Your task to perform on an android device: Clear the cart on ebay.com. Search for bose soundlink on ebay.com, select the first entry, add it to the cart, then select checkout. Image 0: 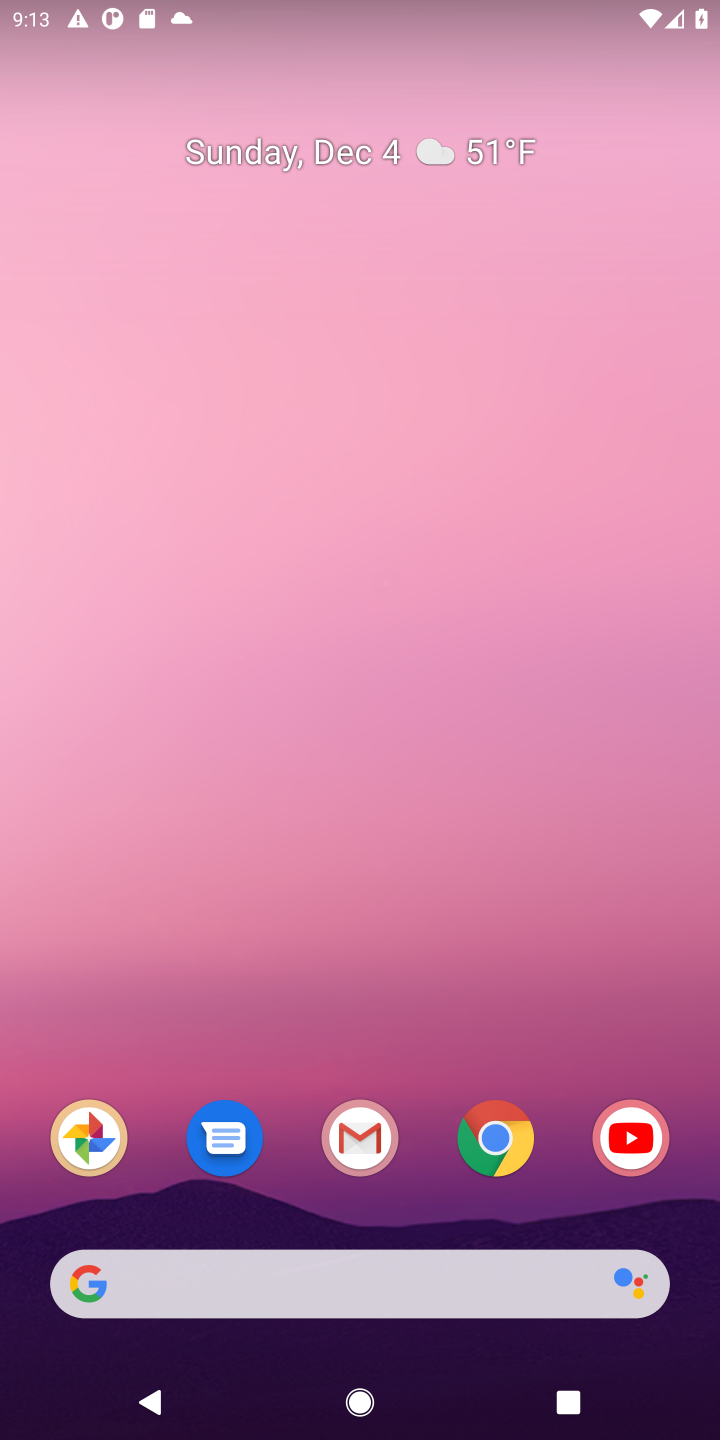
Step 0: click (526, 1131)
Your task to perform on an android device: Clear the cart on ebay.com. Search for bose soundlink on ebay.com, select the first entry, add it to the cart, then select checkout. Image 1: 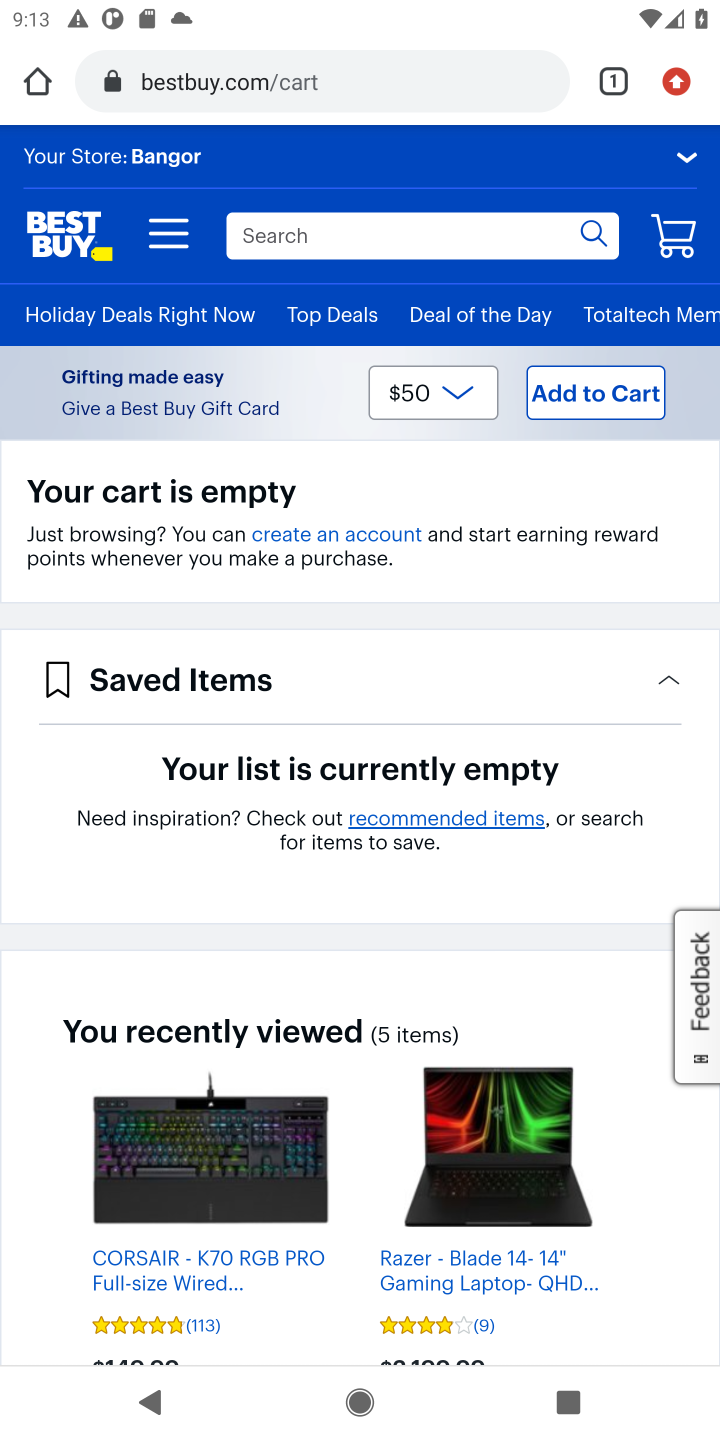
Step 1: click (352, 79)
Your task to perform on an android device: Clear the cart on ebay.com. Search for bose soundlink on ebay.com, select the first entry, add it to the cart, then select checkout. Image 2: 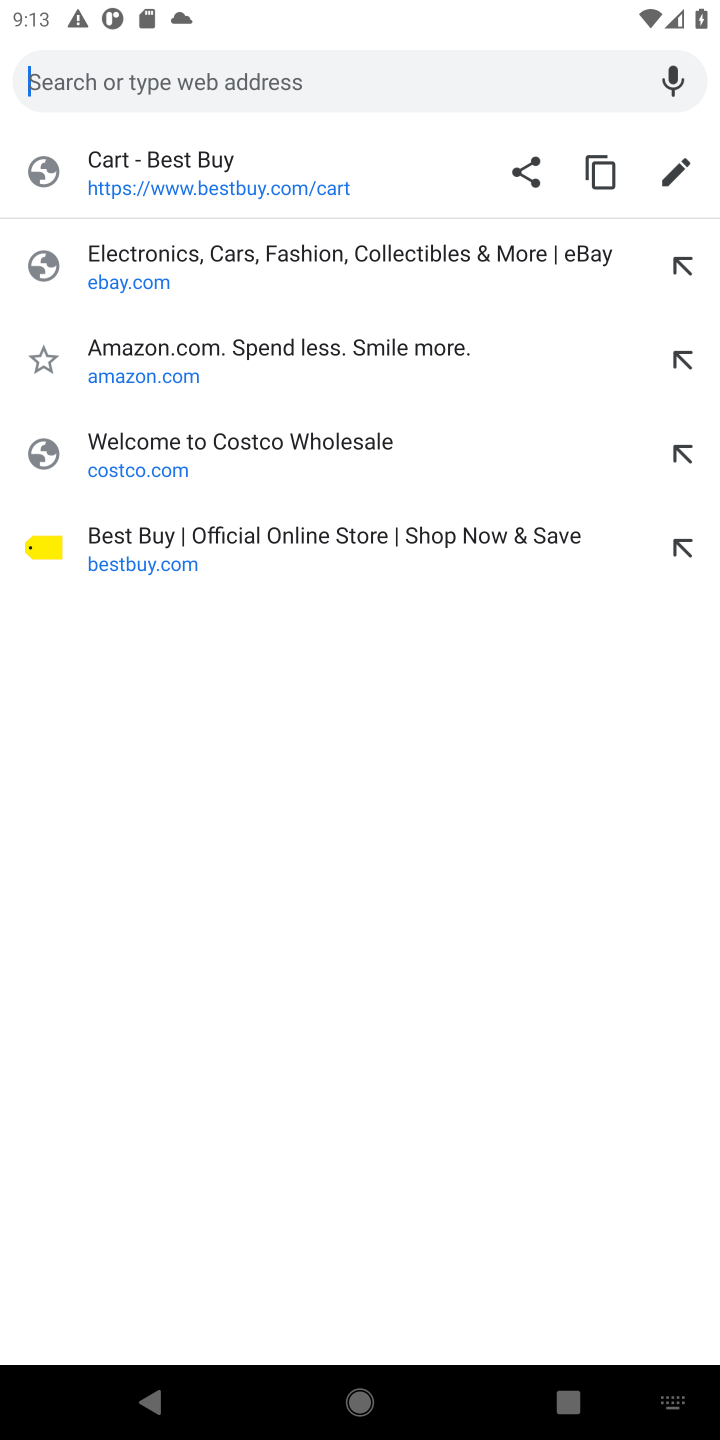
Step 2: type "ebay.com"
Your task to perform on an android device: Clear the cart on ebay.com. Search for bose soundlink on ebay.com, select the first entry, add it to the cart, then select checkout. Image 3: 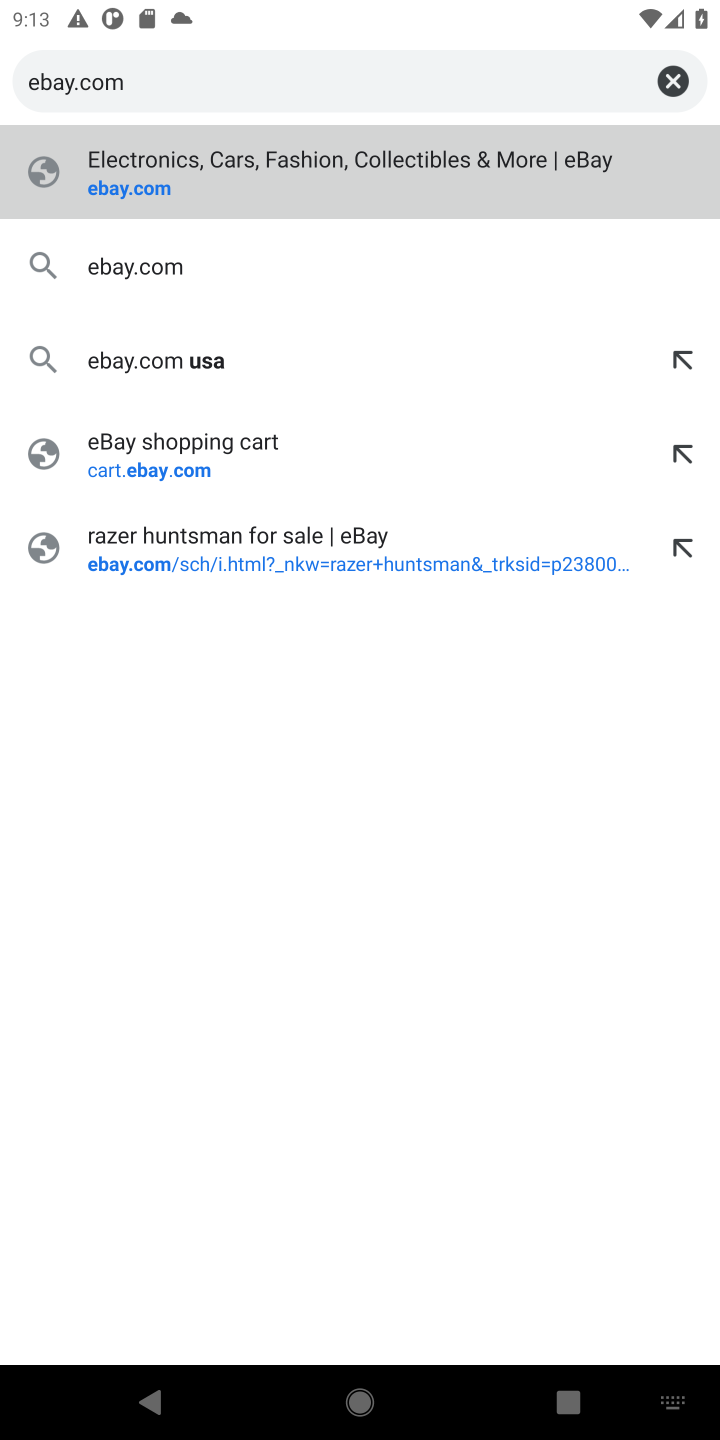
Step 3: press enter
Your task to perform on an android device: Clear the cart on ebay.com. Search for bose soundlink on ebay.com, select the first entry, add it to the cart, then select checkout. Image 4: 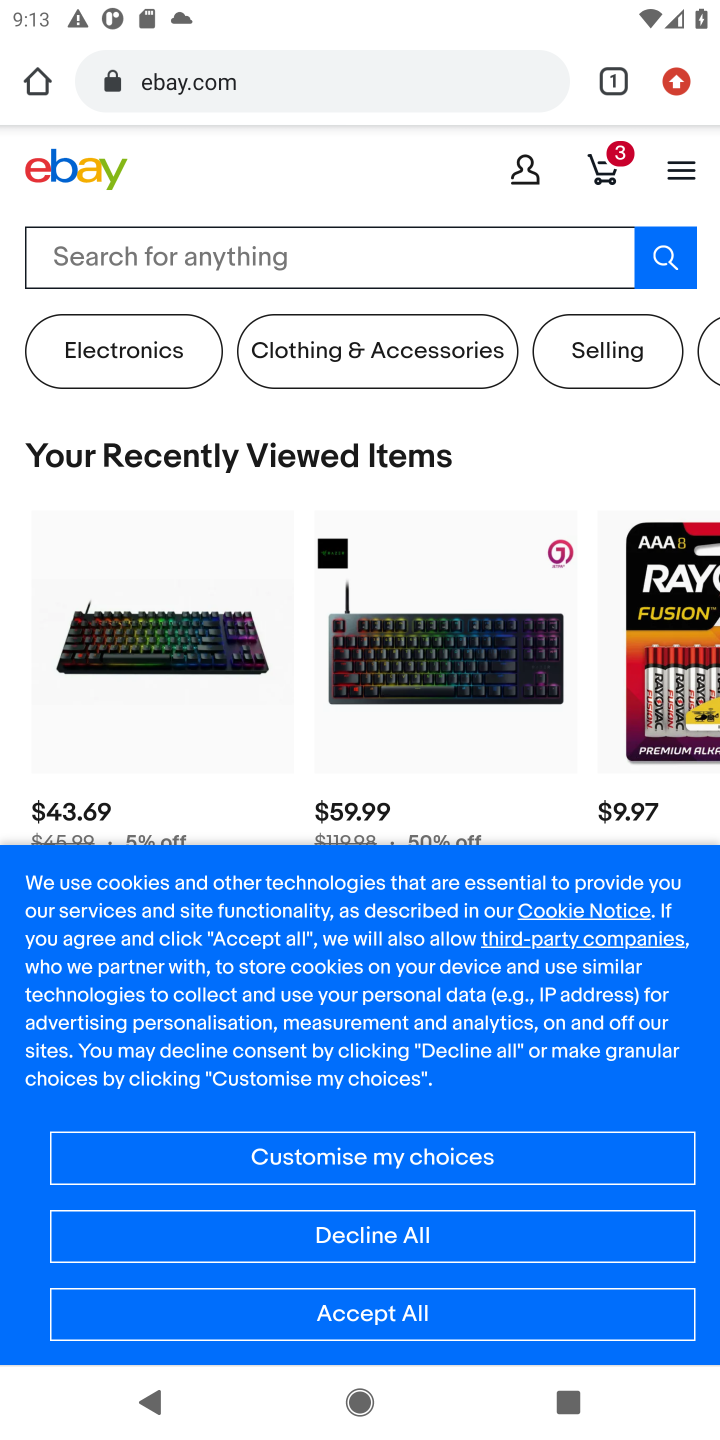
Step 4: click (595, 178)
Your task to perform on an android device: Clear the cart on ebay.com. Search for bose soundlink on ebay.com, select the first entry, add it to the cart, then select checkout. Image 5: 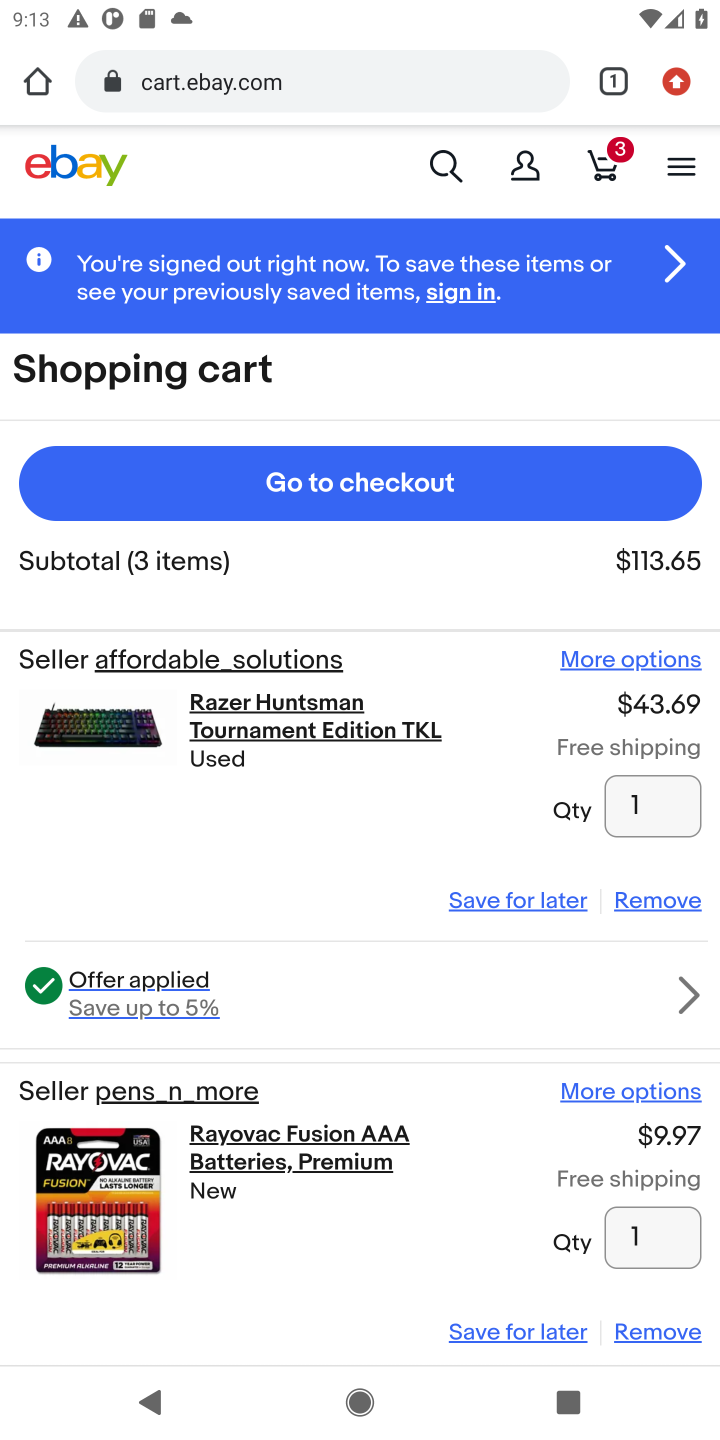
Step 5: click (663, 909)
Your task to perform on an android device: Clear the cart on ebay.com. Search for bose soundlink on ebay.com, select the first entry, add it to the cart, then select checkout. Image 6: 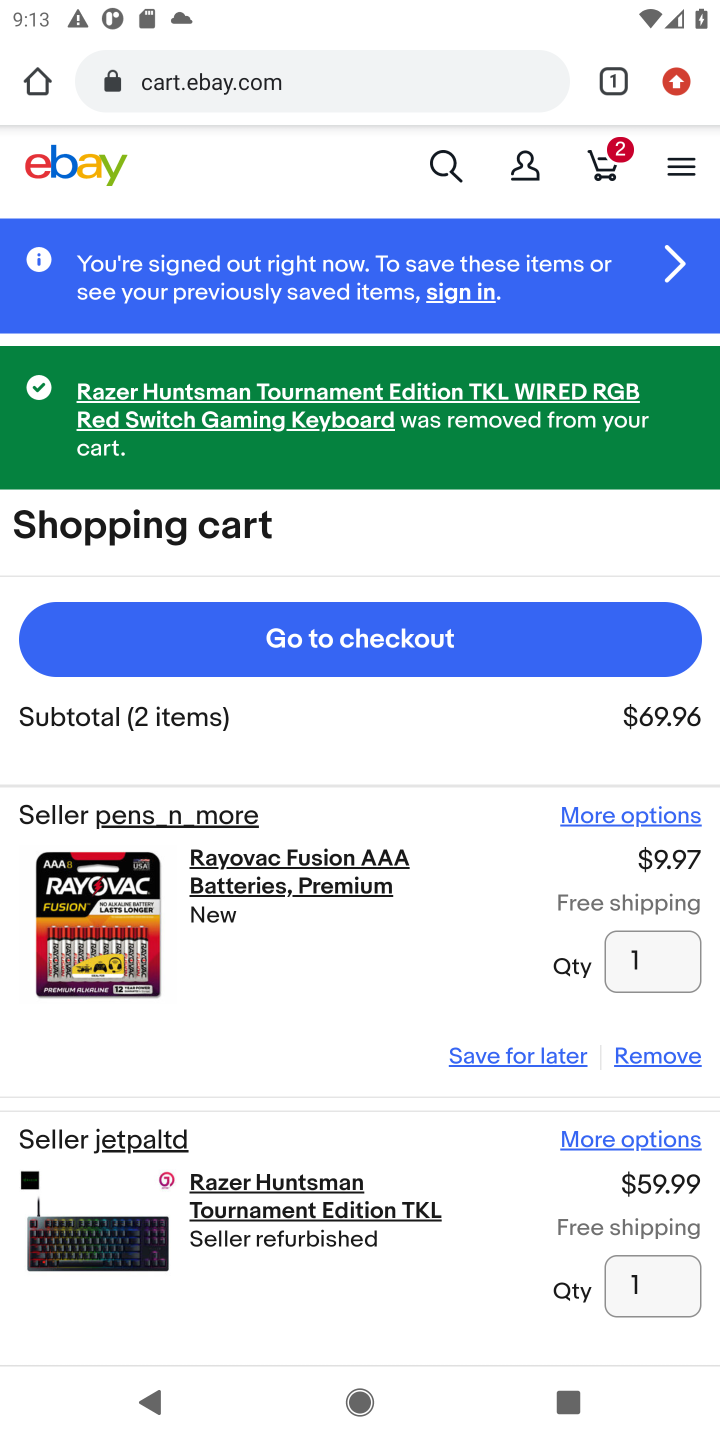
Step 6: click (657, 1054)
Your task to perform on an android device: Clear the cart on ebay.com. Search for bose soundlink on ebay.com, select the first entry, add it to the cart, then select checkout. Image 7: 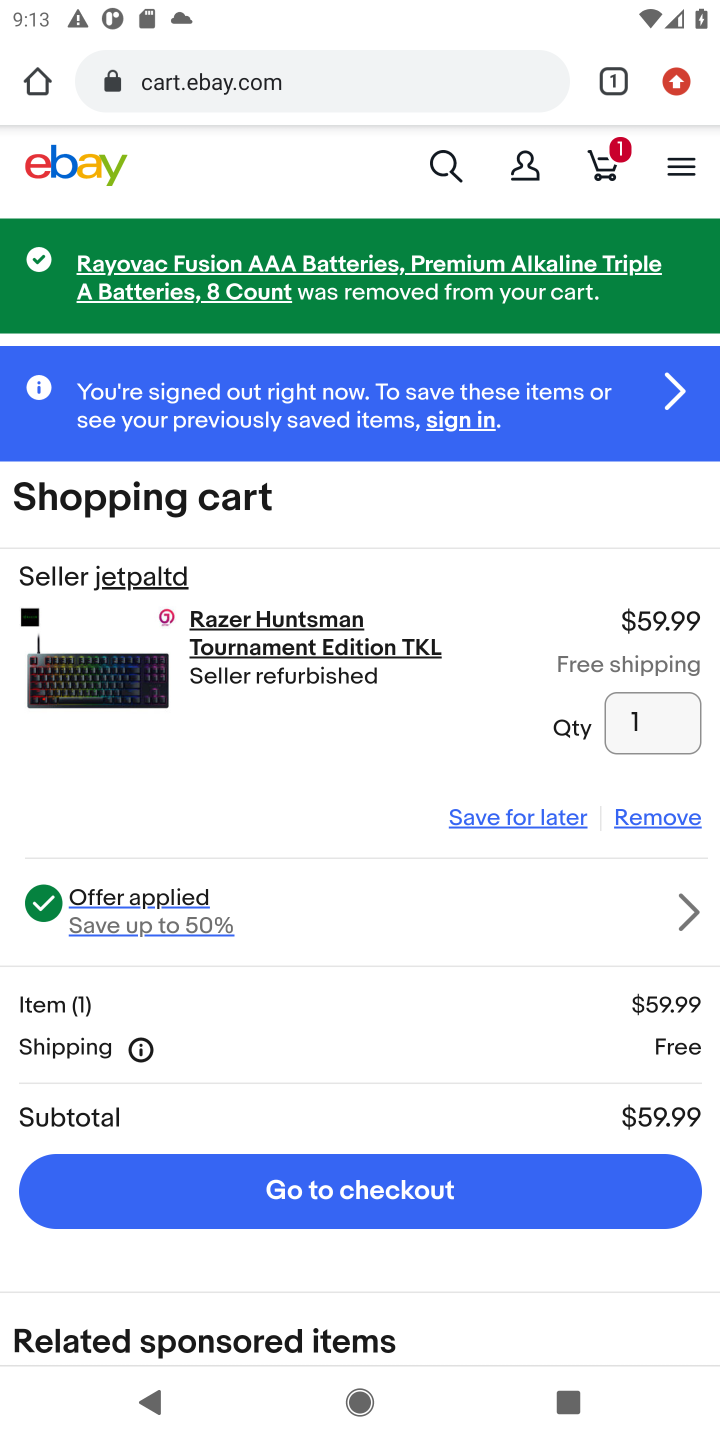
Step 7: click (669, 823)
Your task to perform on an android device: Clear the cart on ebay.com. Search for bose soundlink on ebay.com, select the first entry, add it to the cart, then select checkout. Image 8: 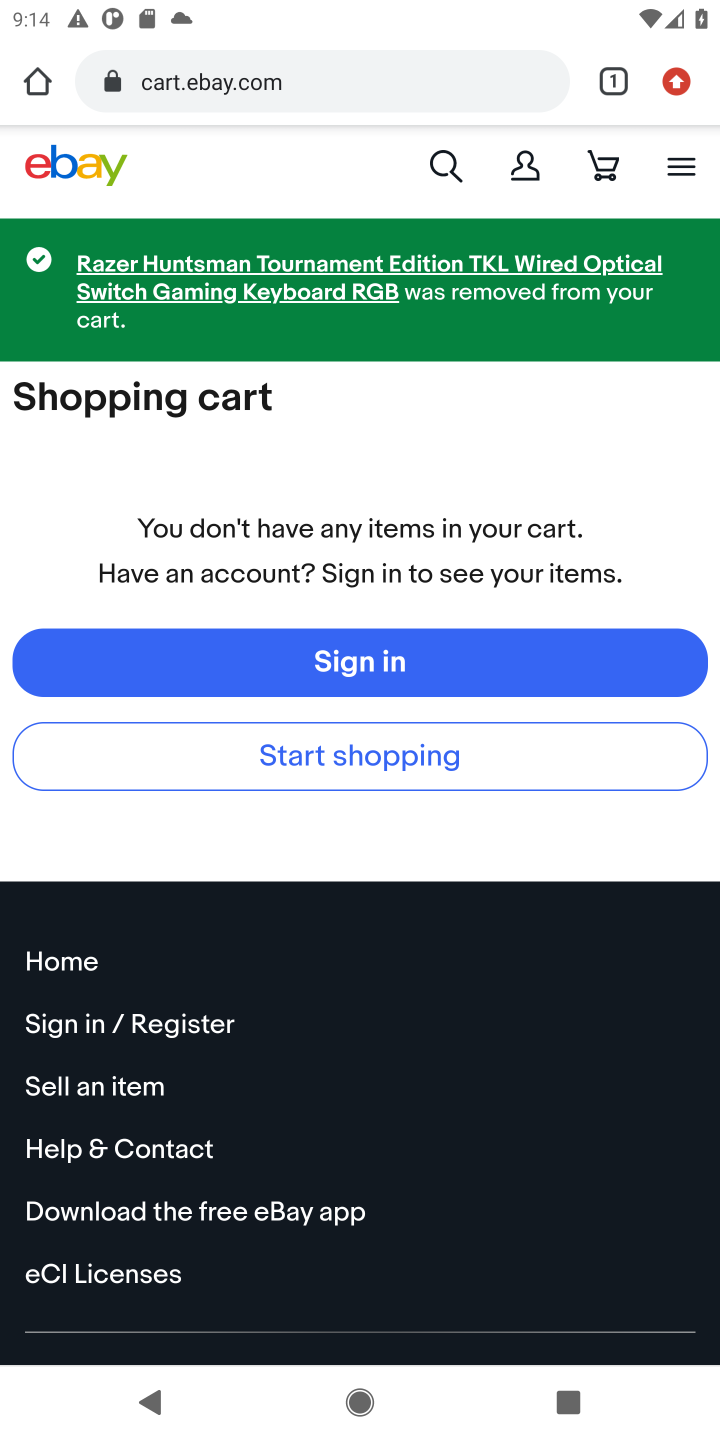
Step 8: click (444, 150)
Your task to perform on an android device: Clear the cart on ebay.com. Search for bose soundlink on ebay.com, select the first entry, add it to the cart, then select checkout. Image 9: 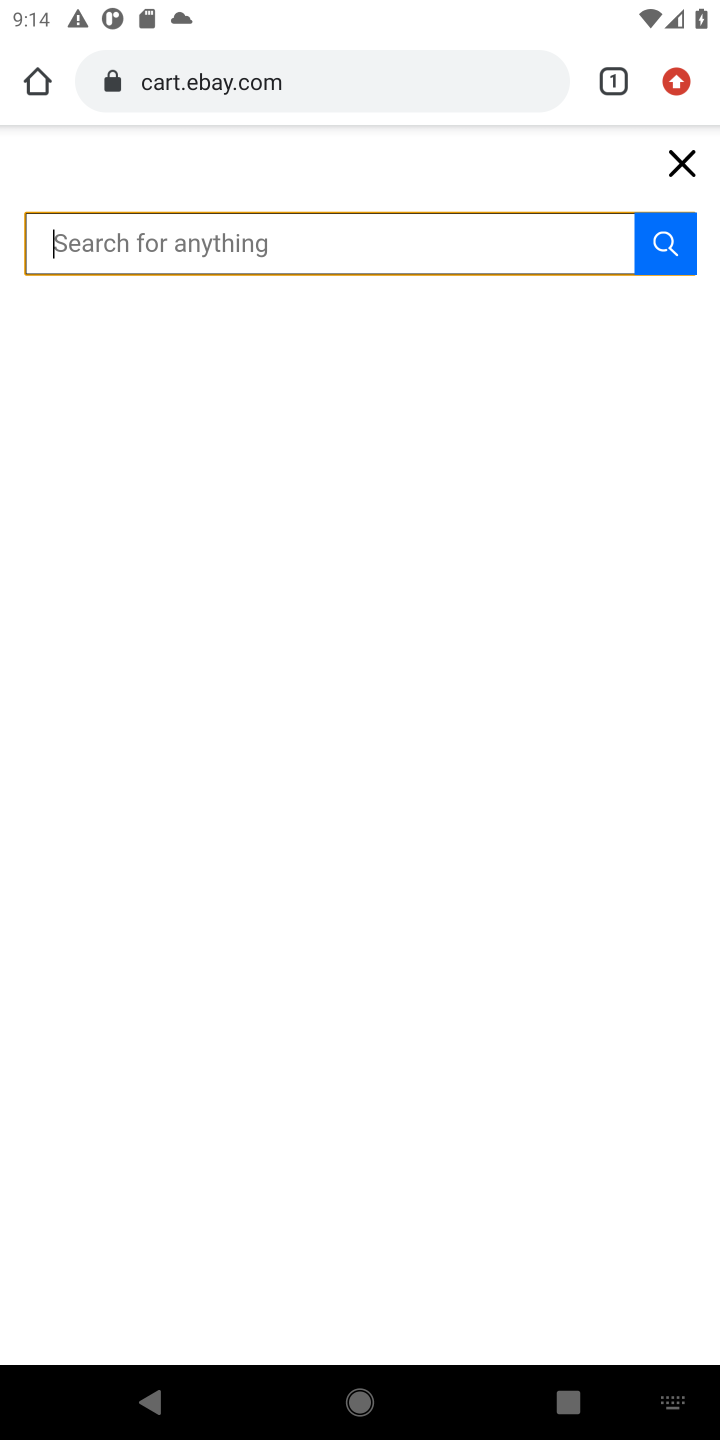
Step 9: type "bose soundlink"
Your task to perform on an android device: Clear the cart on ebay.com. Search for bose soundlink on ebay.com, select the first entry, add it to the cart, then select checkout. Image 10: 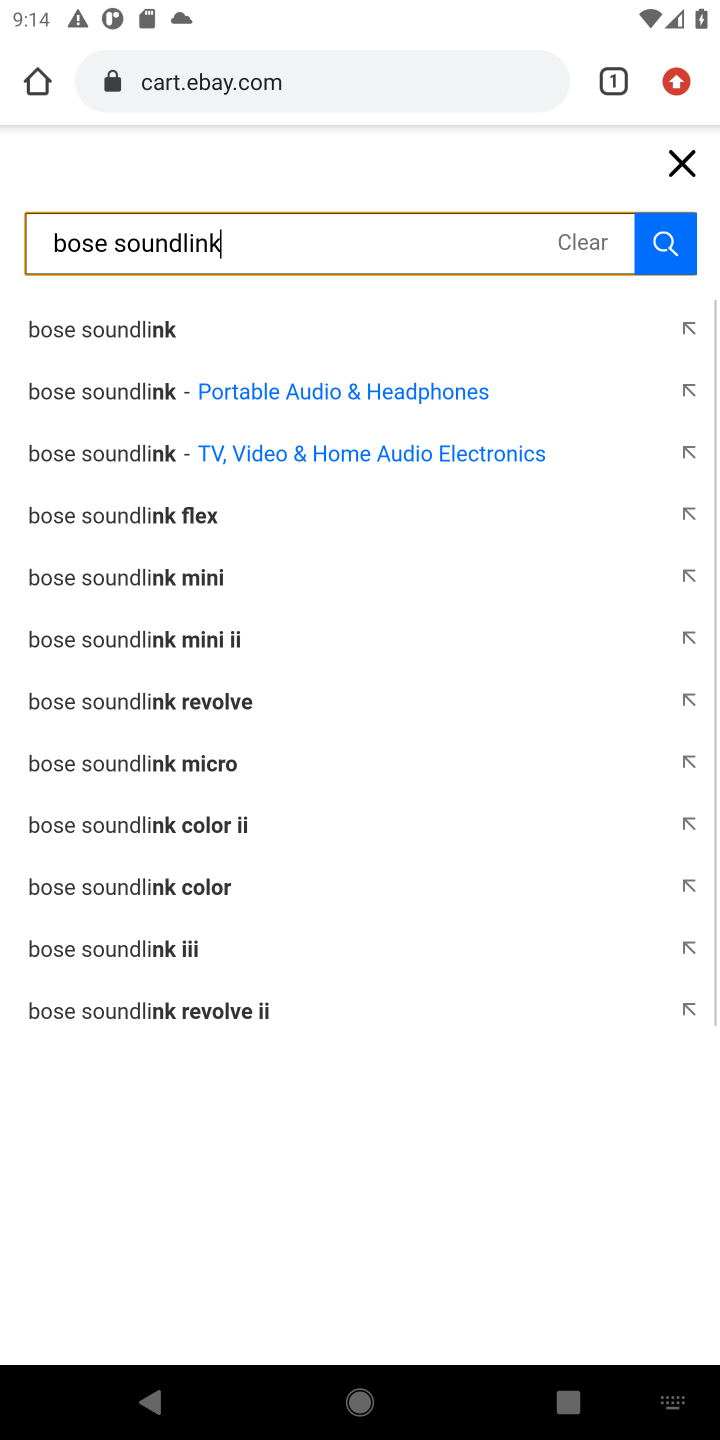
Step 10: press enter
Your task to perform on an android device: Clear the cart on ebay.com. Search for bose soundlink on ebay.com, select the first entry, add it to the cart, then select checkout. Image 11: 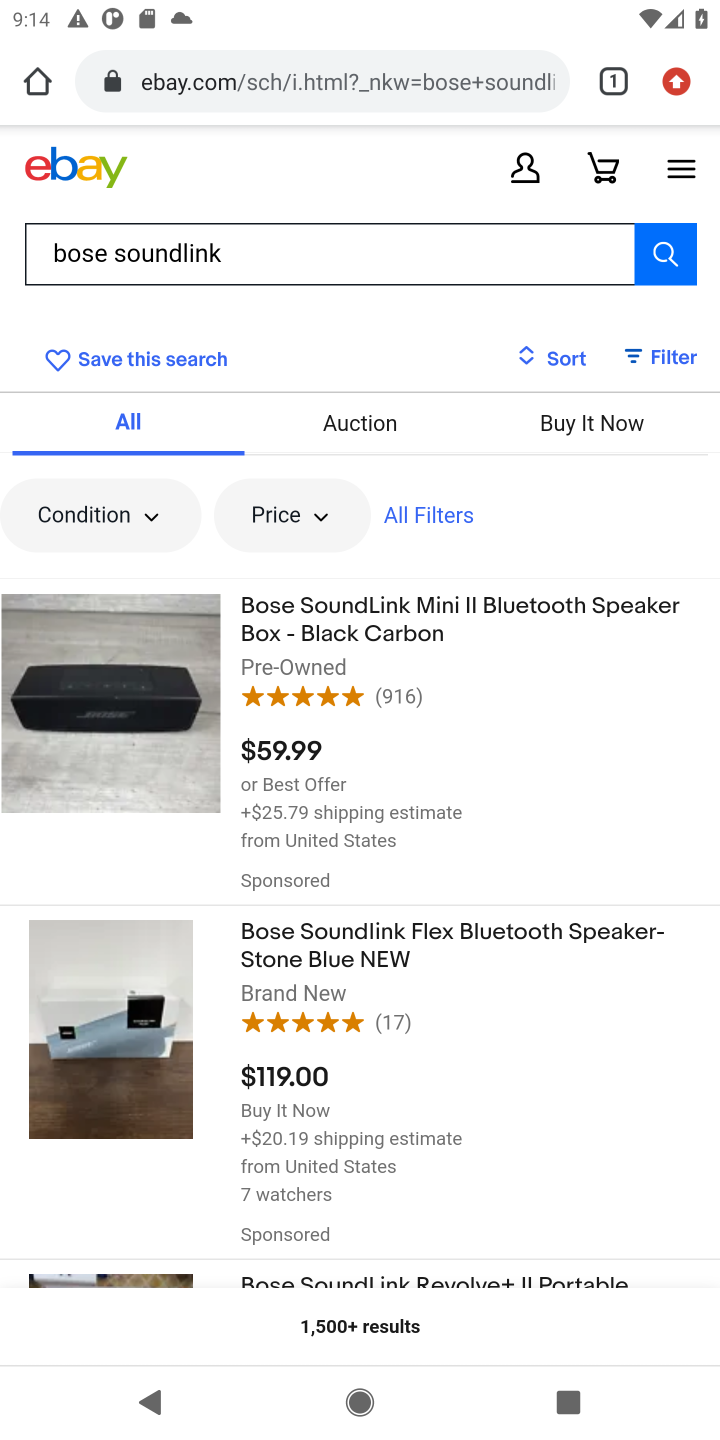
Step 11: click (111, 994)
Your task to perform on an android device: Clear the cart on ebay.com. Search for bose soundlink on ebay.com, select the first entry, add it to the cart, then select checkout. Image 12: 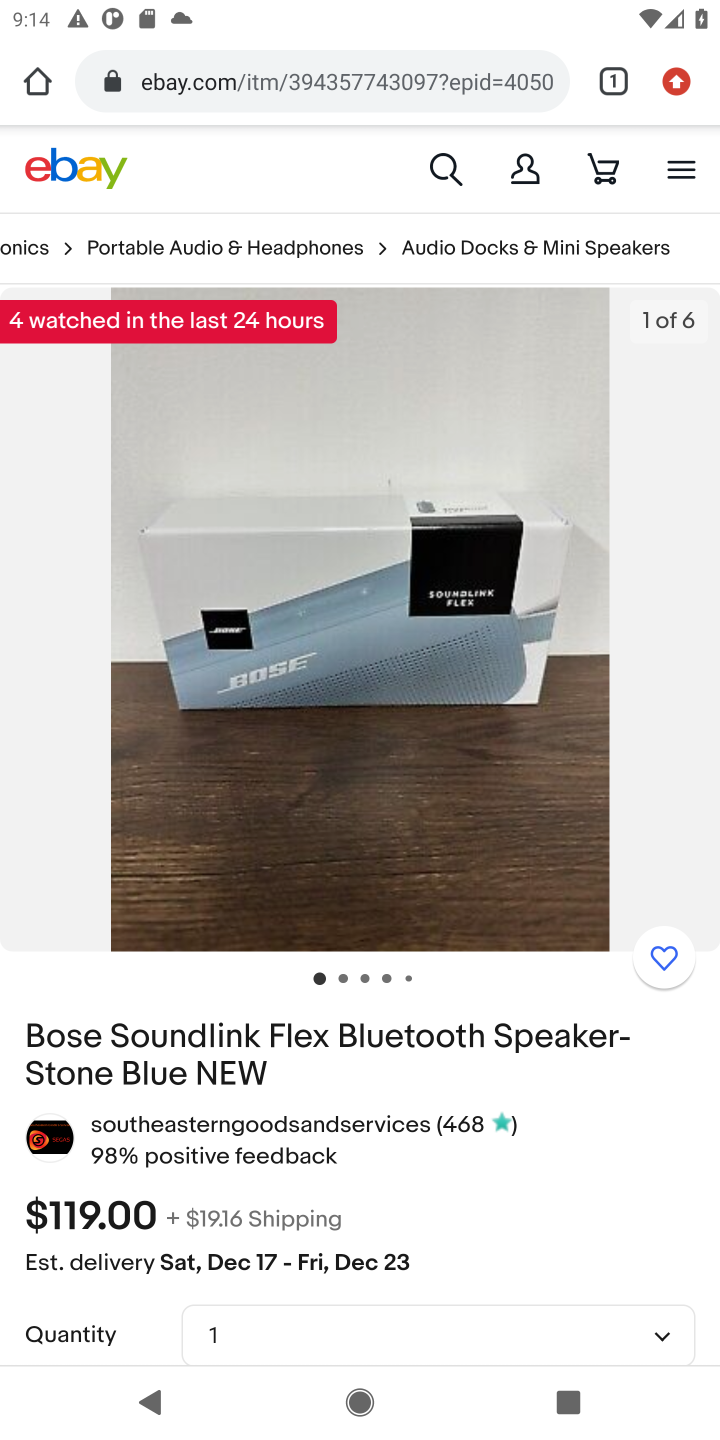
Step 12: drag from (591, 1162) to (668, 454)
Your task to perform on an android device: Clear the cart on ebay.com. Search for bose soundlink on ebay.com, select the first entry, add it to the cart, then select checkout. Image 13: 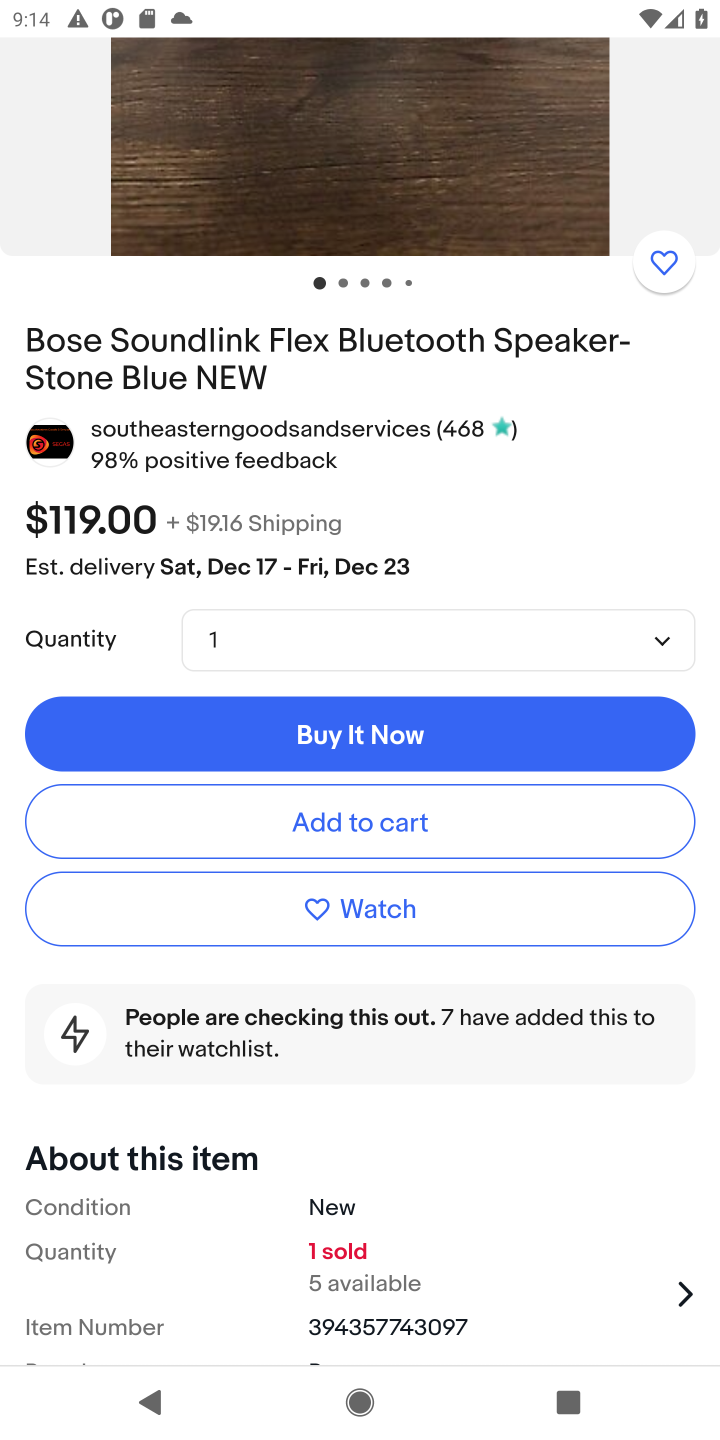
Step 13: click (398, 816)
Your task to perform on an android device: Clear the cart on ebay.com. Search for bose soundlink on ebay.com, select the first entry, add it to the cart, then select checkout. Image 14: 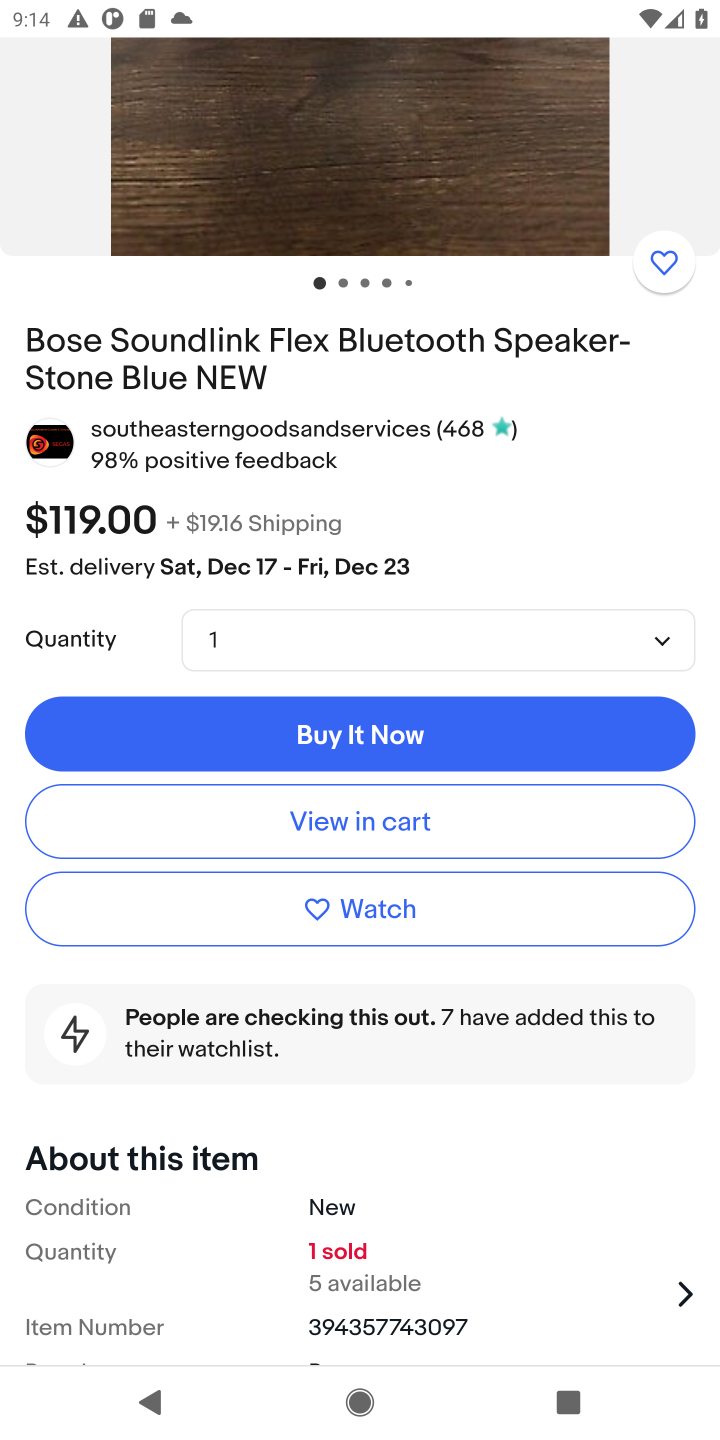
Step 14: click (398, 815)
Your task to perform on an android device: Clear the cart on ebay.com. Search for bose soundlink on ebay.com, select the first entry, add it to the cart, then select checkout. Image 15: 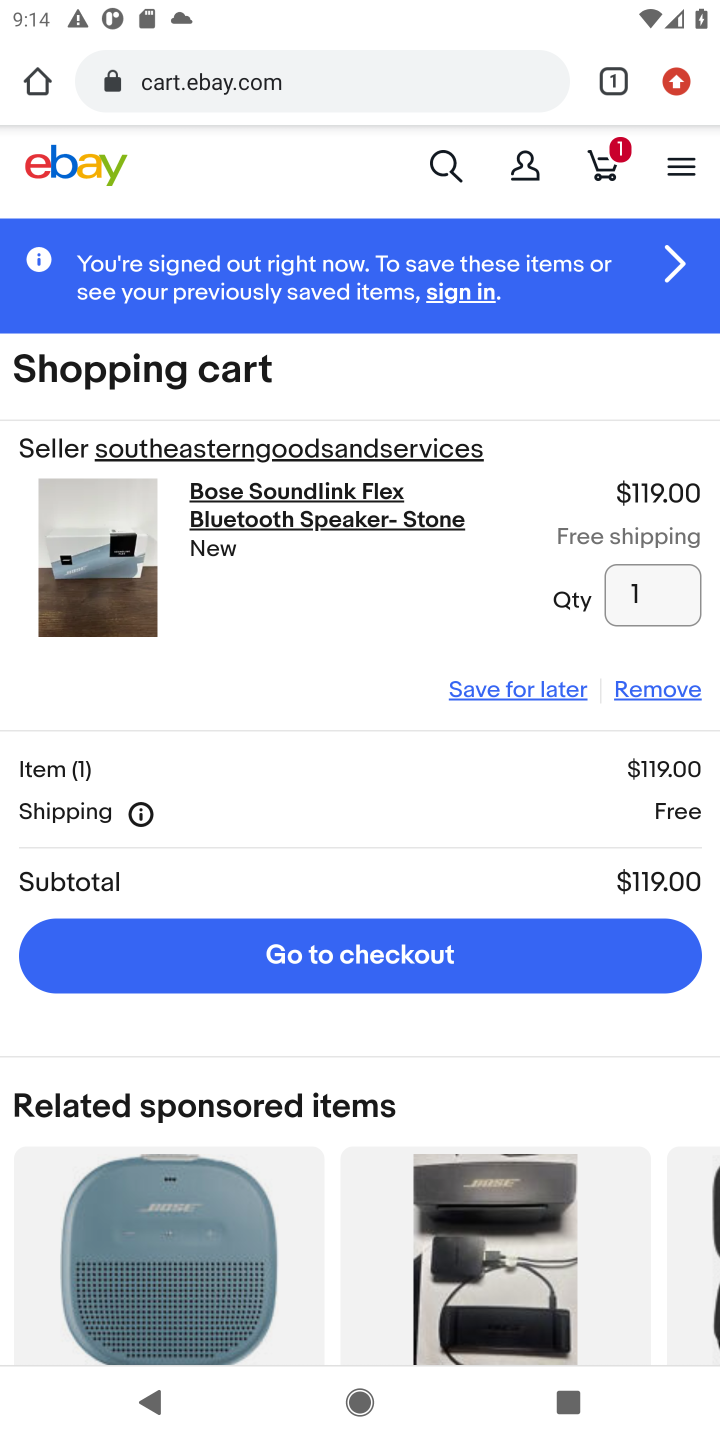
Step 15: click (393, 946)
Your task to perform on an android device: Clear the cart on ebay.com. Search for bose soundlink on ebay.com, select the first entry, add it to the cart, then select checkout. Image 16: 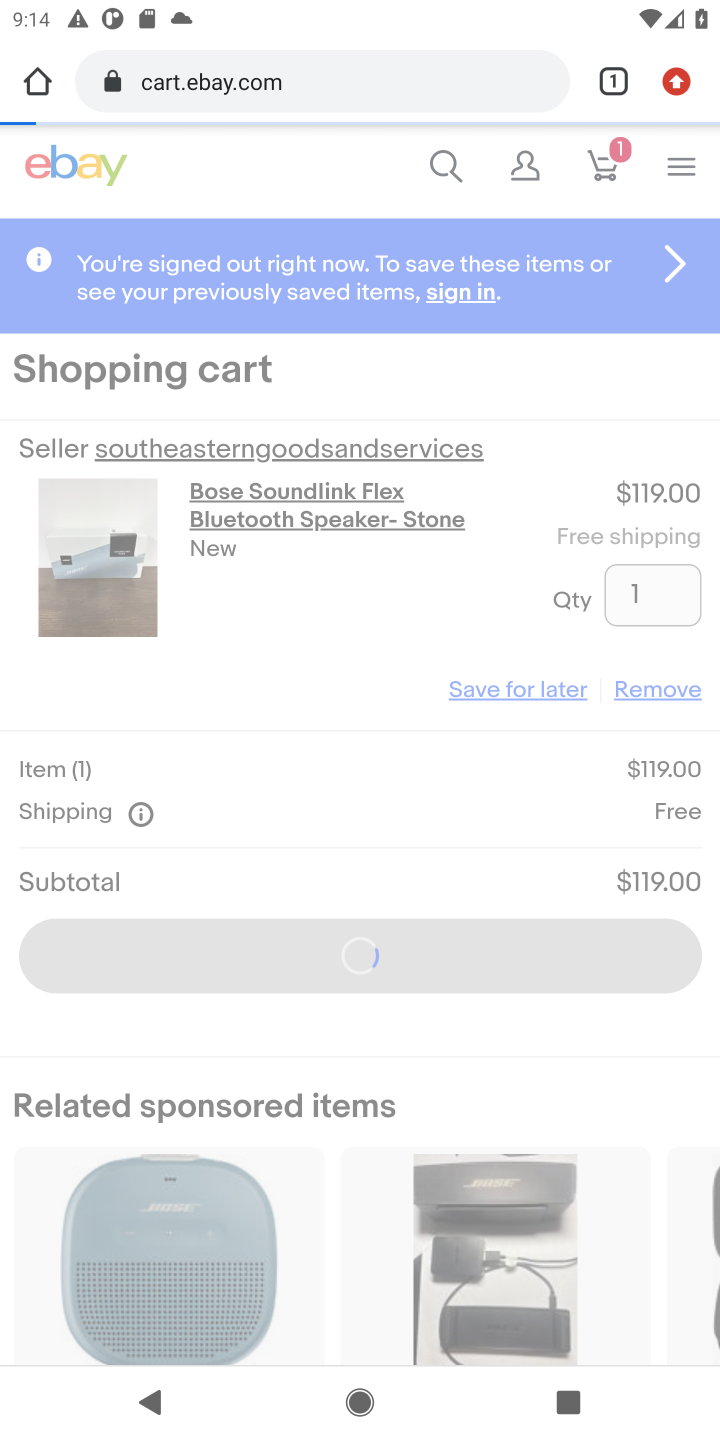
Step 16: task complete